Your task to perform on an android device: search for starred emails in the gmail app Image 0: 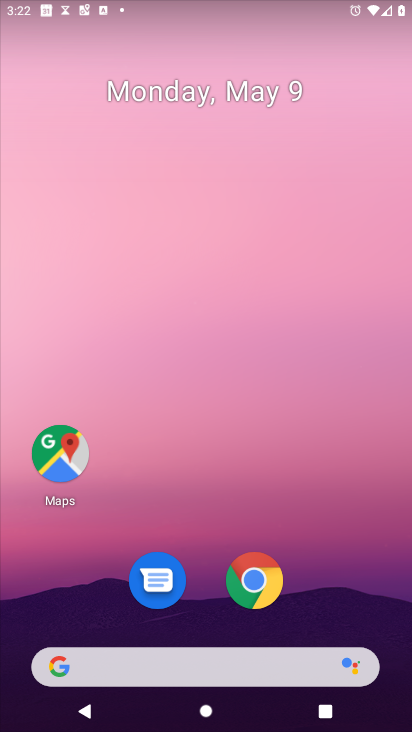
Step 0: drag from (323, 589) to (277, 169)
Your task to perform on an android device: search for starred emails in the gmail app Image 1: 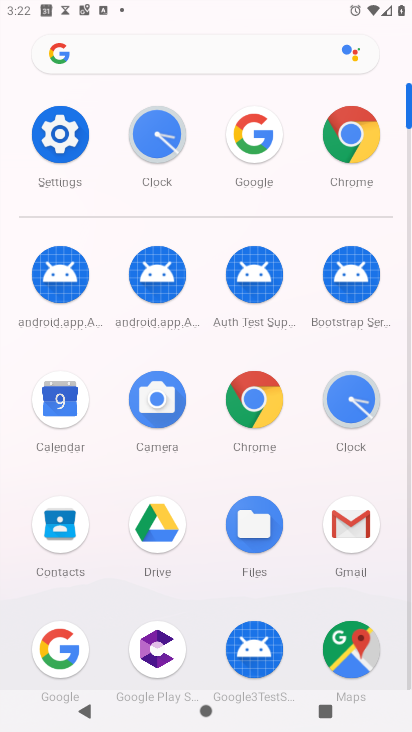
Step 1: click (356, 521)
Your task to perform on an android device: search for starred emails in the gmail app Image 2: 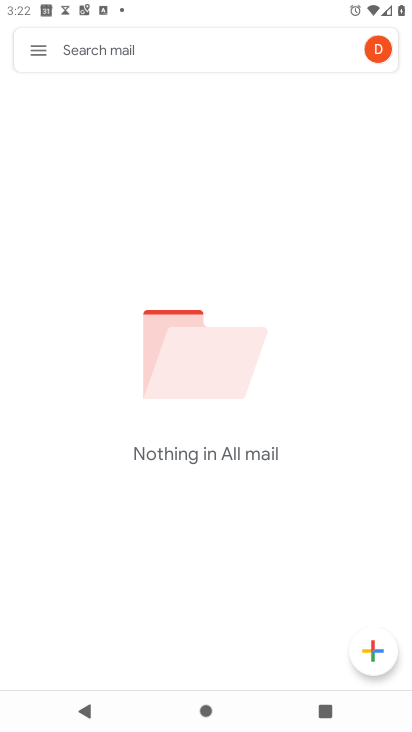
Step 2: click (147, 51)
Your task to perform on an android device: search for starred emails in the gmail app Image 3: 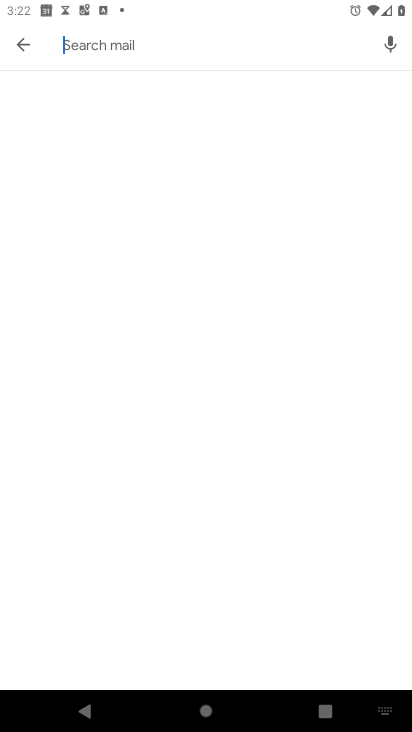
Step 3: type "starred"
Your task to perform on an android device: search for starred emails in the gmail app Image 4: 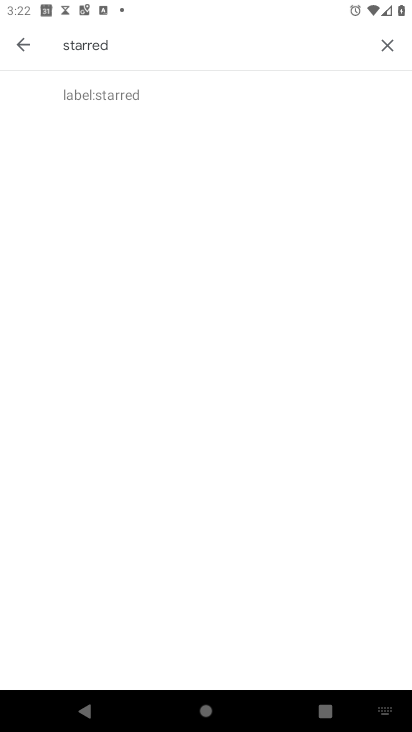
Step 4: click (129, 107)
Your task to perform on an android device: search for starred emails in the gmail app Image 5: 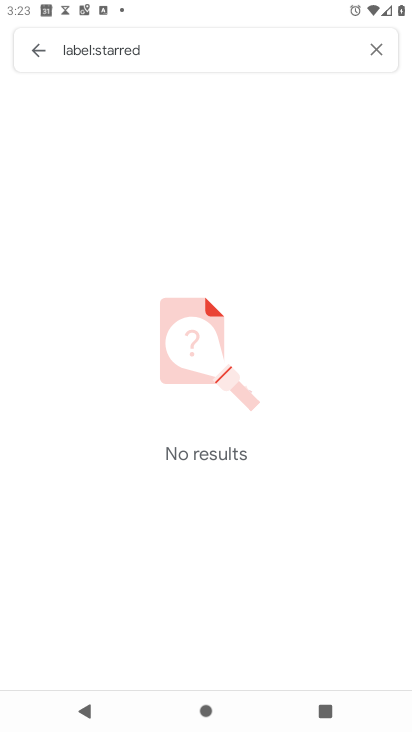
Step 5: task complete